Your task to perform on an android device: delete a single message in the gmail app Image 0: 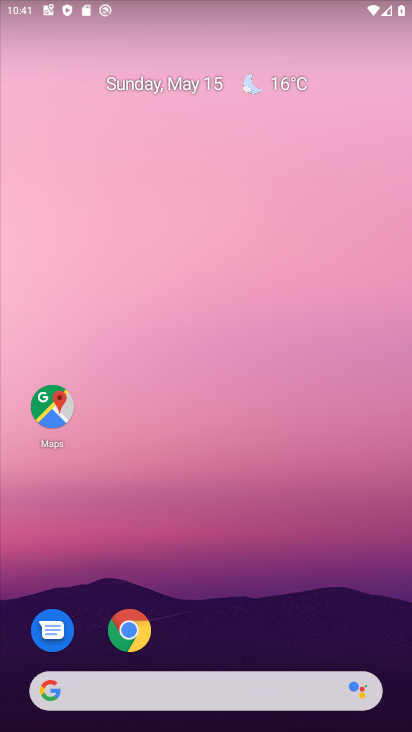
Step 0: drag from (217, 644) to (222, 211)
Your task to perform on an android device: delete a single message in the gmail app Image 1: 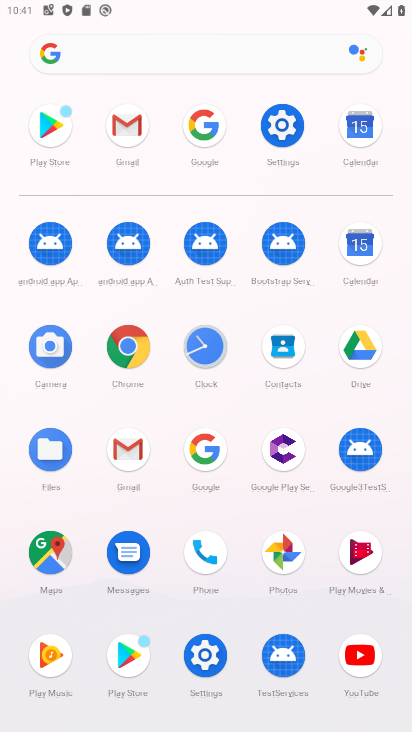
Step 1: click (131, 452)
Your task to perform on an android device: delete a single message in the gmail app Image 2: 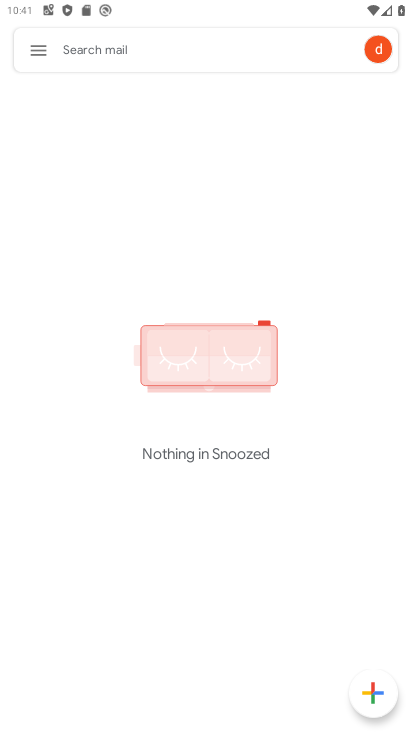
Step 2: click (42, 47)
Your task to perform on an android device: delete a single message in the gmail app Image 3: 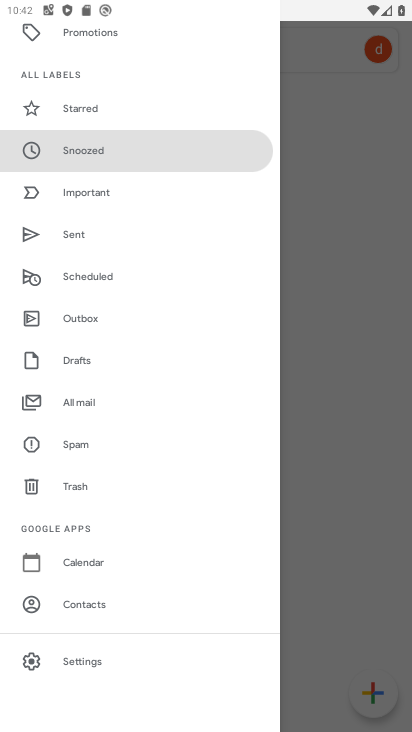
Step 3: click (77, 392)
Your task to perform on an android device: delete a single message in the gmail app Image 4: 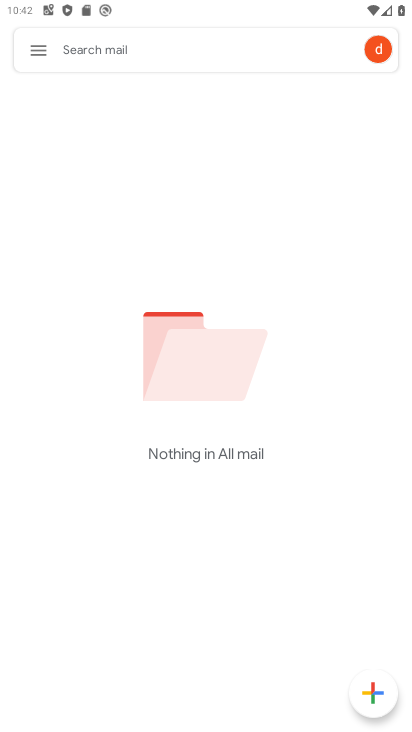
Step 4: task complete